Your task to perform on an android device: move an email to a new category in the gmail app Image 0: 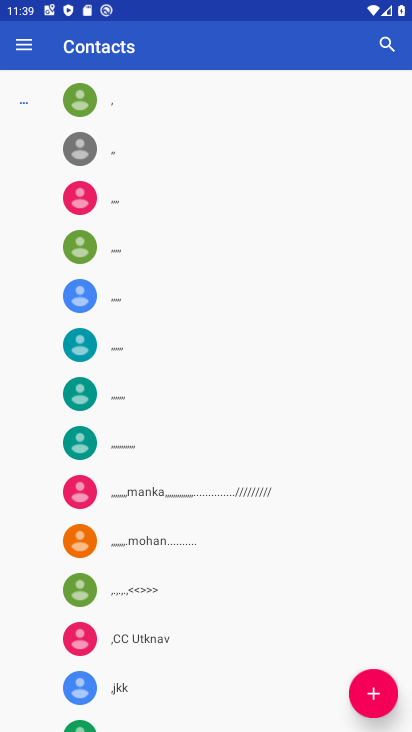
Step 0: press home button
Your task to perform on an android device: move an email to a new category in the gmail app Image 1: 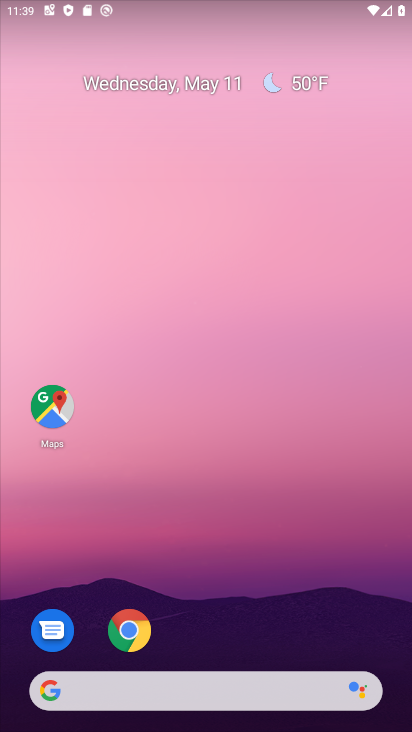
Step 1: drag from (180, 723) to (136, 233)
Your task to perform on an android device: move an email to a new category in the gmail app Image 2: 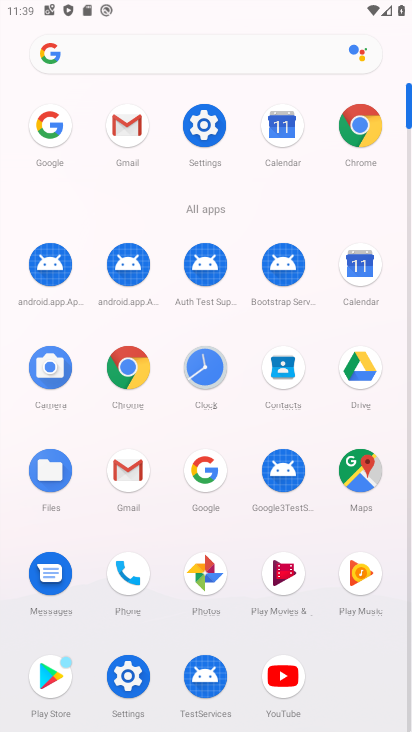
Step 2: click (127, 470)
Your task to perform on an android device: move an email to a new category in the gmail app Image 3: 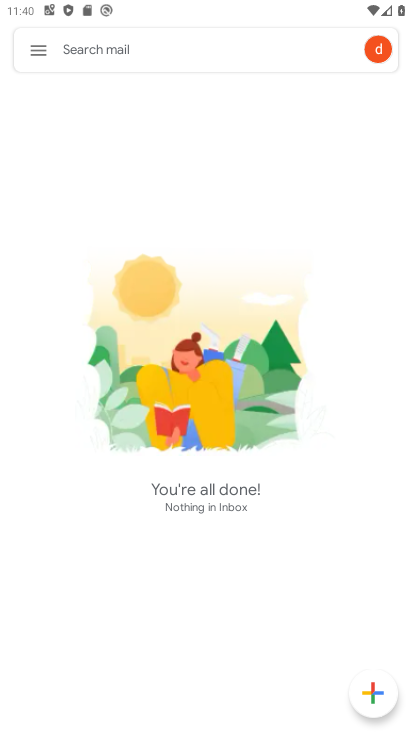
Step 3: task complete